Your task to perform on an android device: change text size in settings app Image 0: 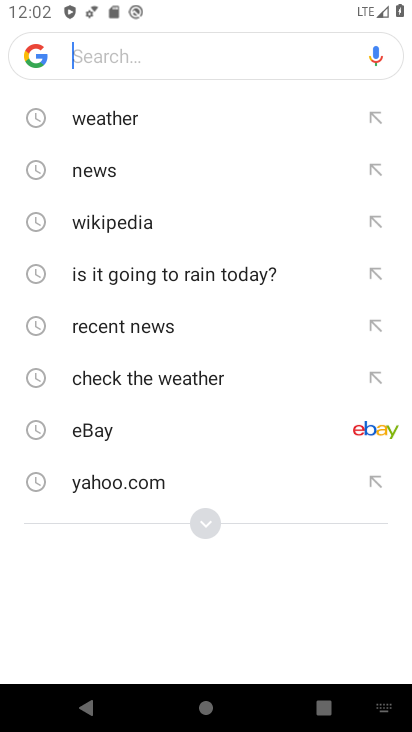
Step 0: press home button
Your task to perform on an android device: change text size in settings app Image 1: 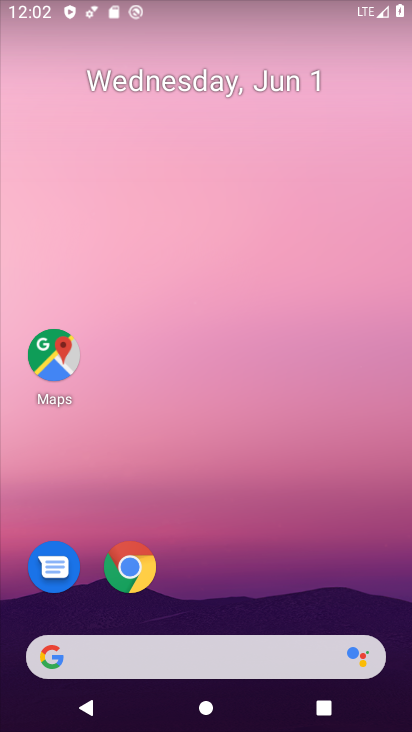
Step 1: drag from (239, 605) to (164, 151)
Your task to perform on an android device: change text size in settings app Image 2: 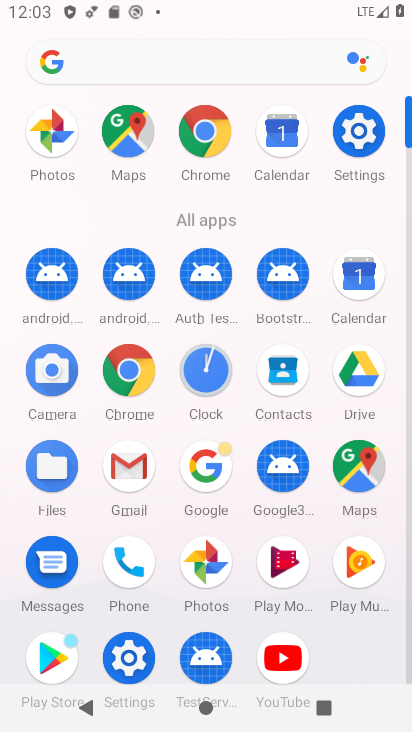
Step 2: click (355, 146)
Your task to perform on an android device: change text size in settings app Image 3: 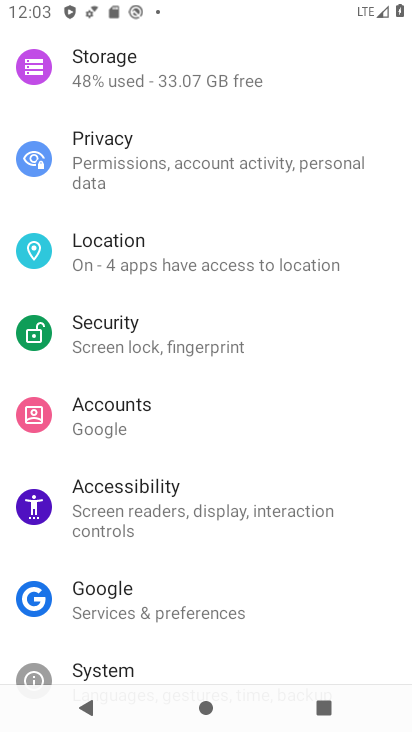
Step 3: drag from (198, 99) to (160, 730)
Your task to perform on an android device: change text size in settings app Image 4: 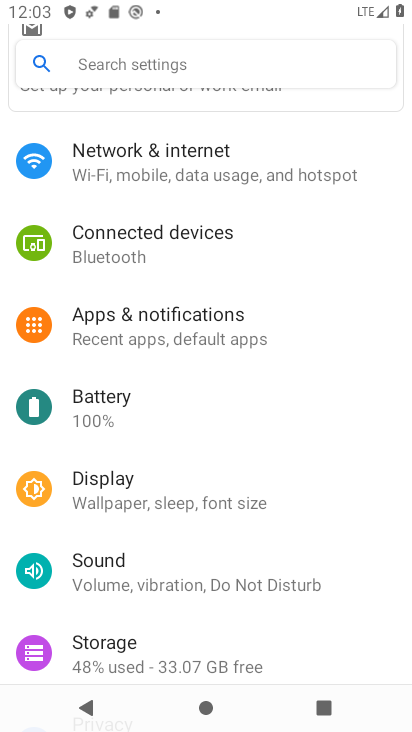
Step 4: click (128, 512)
Your task to perform on an android device: change text size in settings app Image 5: 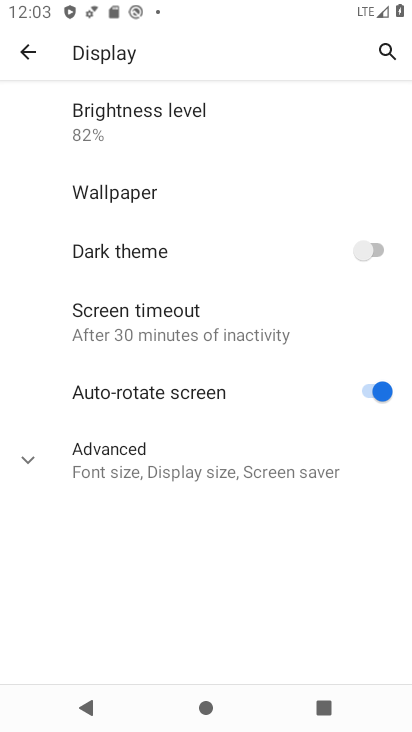
Step 5: click (167, 477)
Your task to perform on an android device: change text size in settings app Image 6: 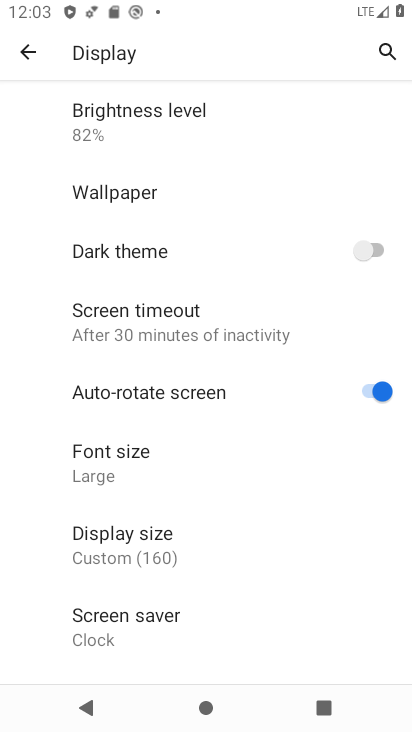
Step 6: click (170, 478)
Your task to perform on an android device: change text size in settings app Image 7: 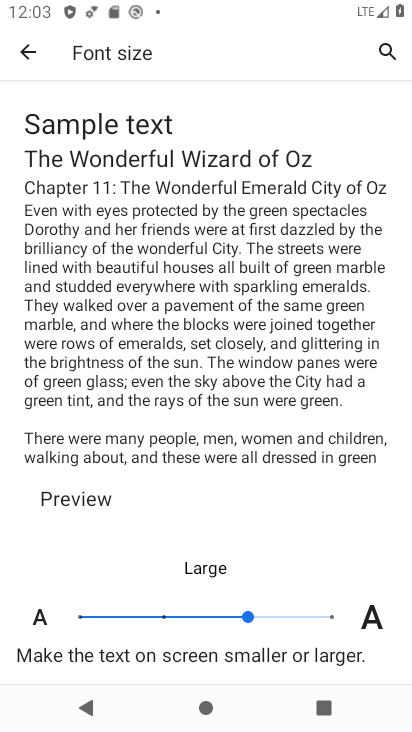
Step 7: click (174, 612)
Your task to perform on an android device: change text size in settings app Image 8: 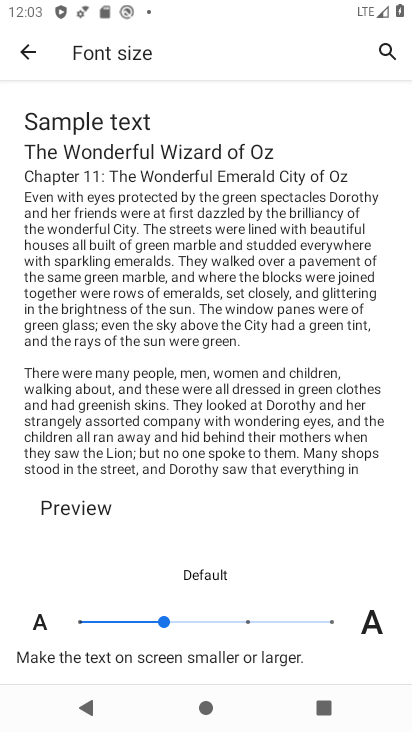
Step 8: task complete